Your task to perform on an android device: toggle wifi Image 0: 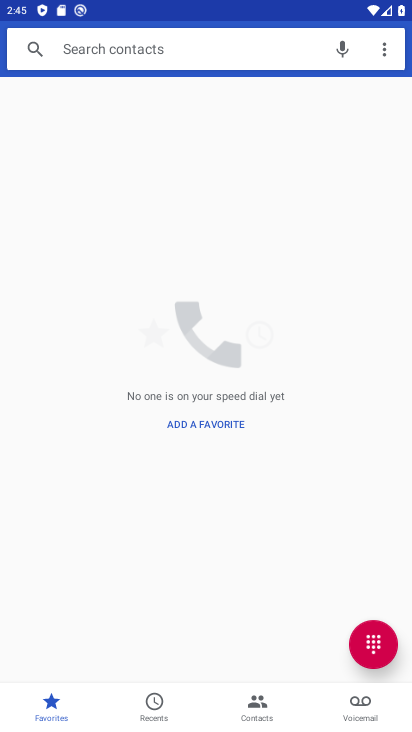
Step 0: press home button
Your task to perform on an android device: toggle wifi Image 1: 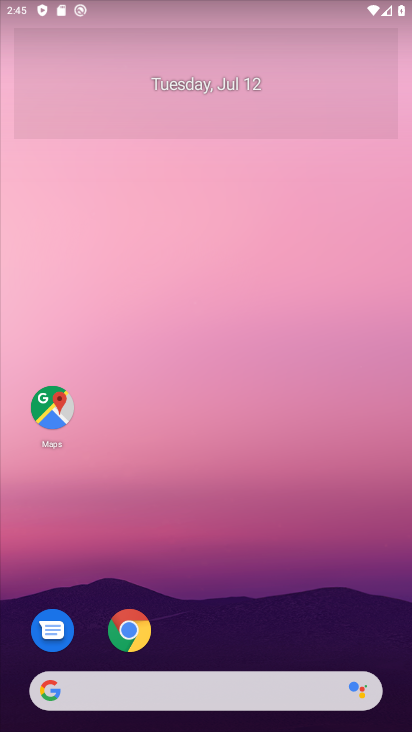
Step 1: drag from (177, 329) to (135, 27)
Your task to perform on an android device: toggle wifi Image 2: 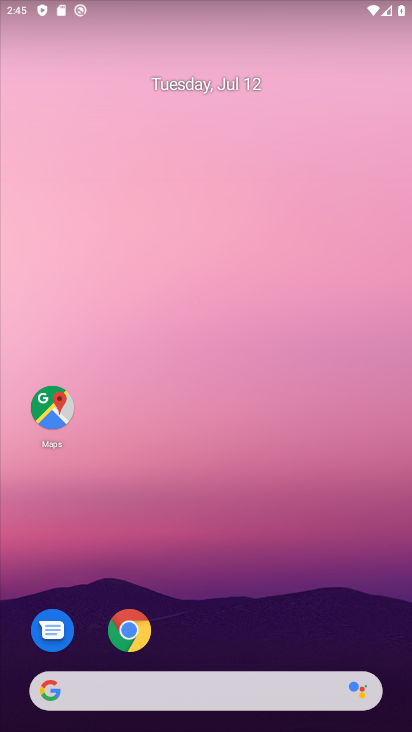
Step 2: drag from (188, 531) to (201, 10)
Your task to perform on an android device: toggle wifi Image 3: 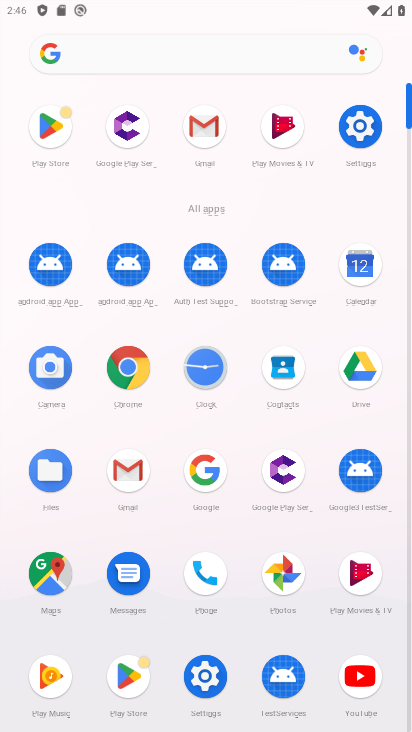
Step 3: click (363, 115)
Your task to perform on an android device: toggle wifi Image 4: 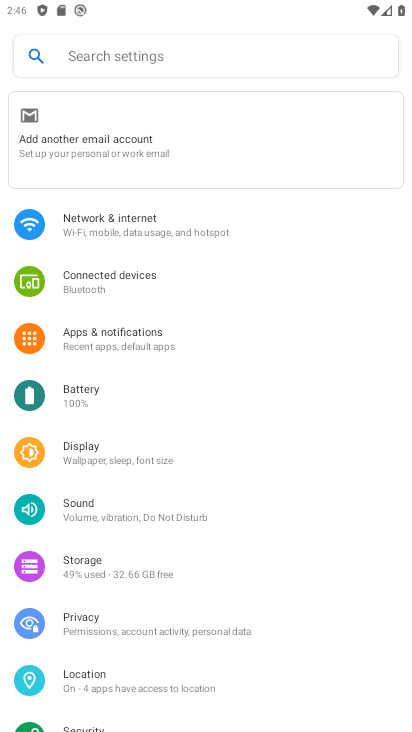
Step 4: click (88, 225)
Your task to perform on an android device: toggle wifi Image 5: 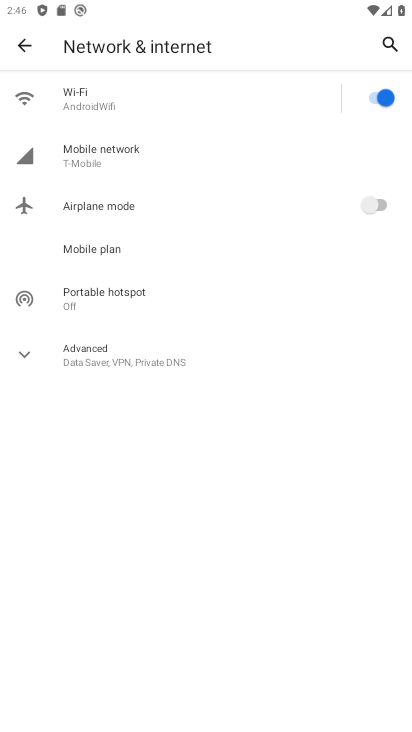
Step 5: click (366, 95)
Your task to perform on an android device: toggle wifi Image 6: 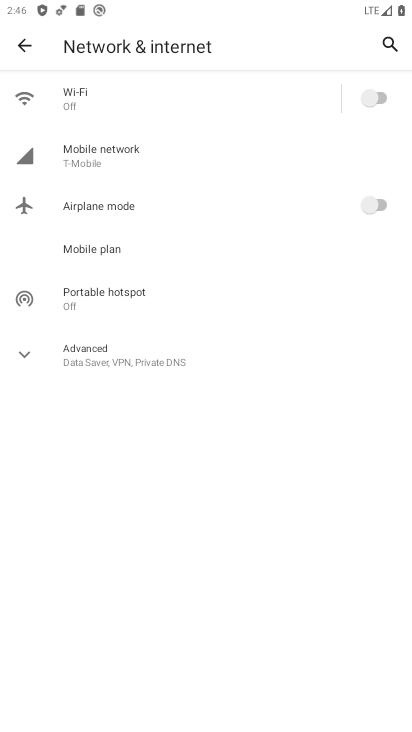
Step 6: task complete